Your task to perform on an android device: turn notification dots off Image 0: 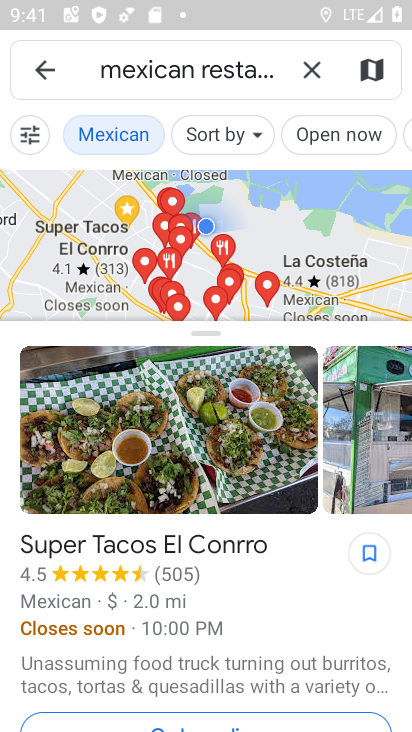
Step 0: press home button
Your task to perform on an android device: turn notification dots off Image 1: 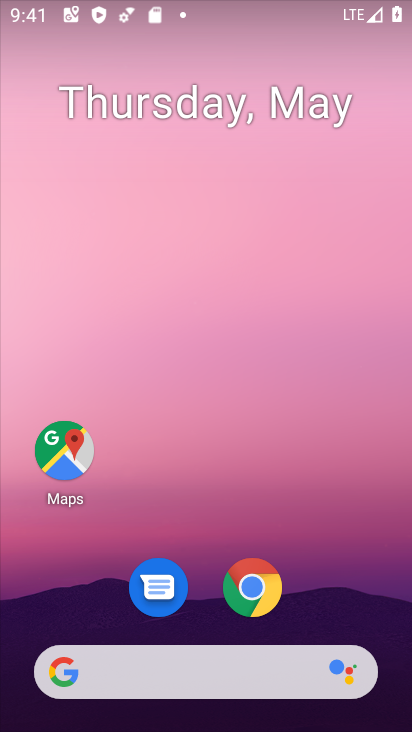
Step 1: drag from (346, 629) to (310, 9)
Your task to perform on an android device: turn notification dots off Image 2: 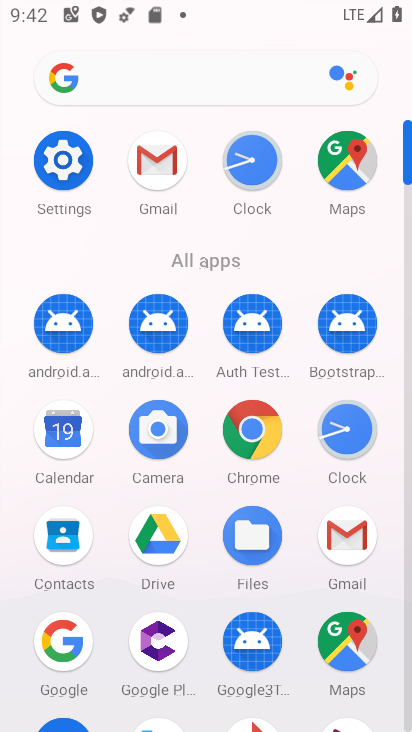
Step 2: click (67, 168)
Your task to perform on an android device: turn notification dots off Image 3: 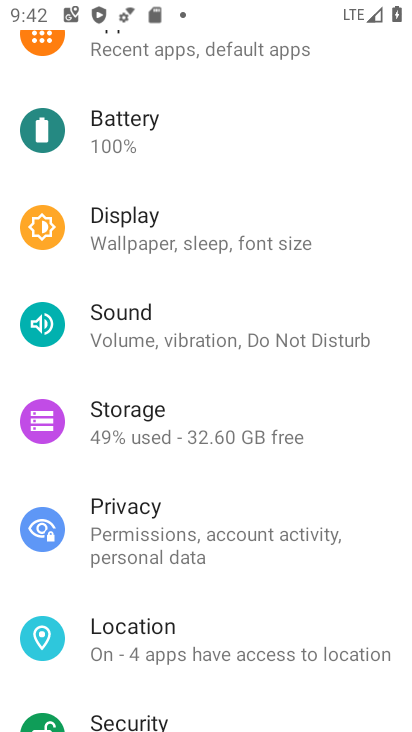
Step 3: drag from (293, 200) to (278, 493)
Your task to perform on an android device: turn notification dots off Image 4: 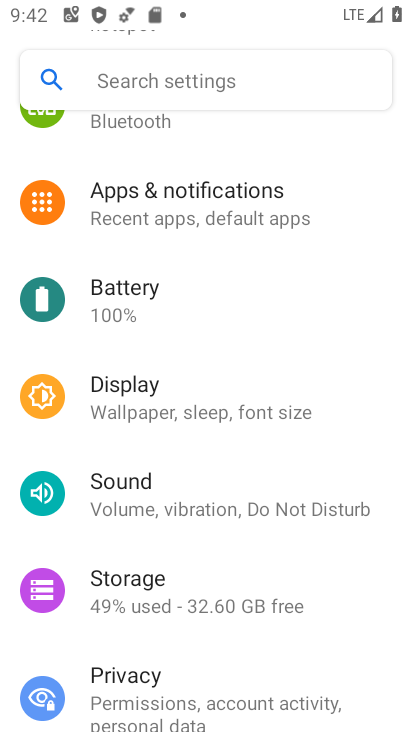
Step 4: click (169, 219)
Your task to perform on an android device: turn notification dots off Image 5: 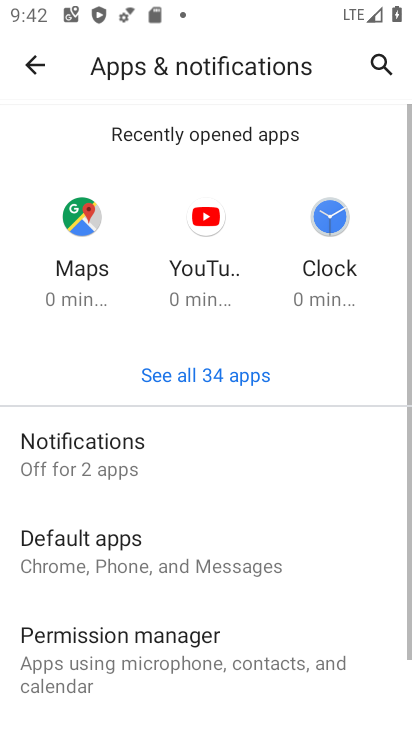
Step 5: click (94, 446)
Your task to perform on an android device: turn notification dots off Image 6: 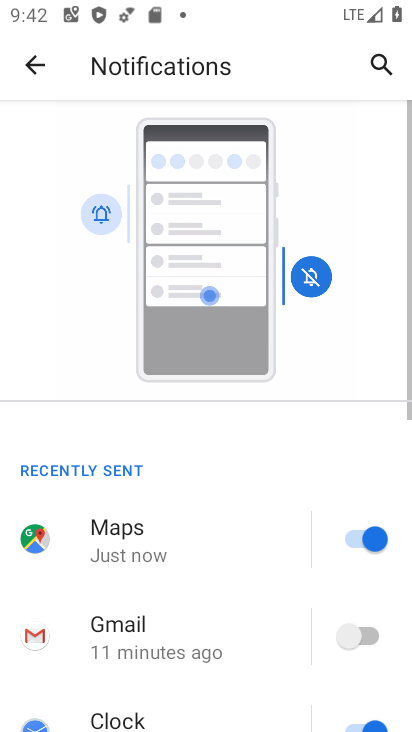
Step 6: drag from (230, 577) to (236, 121)
Your task to perform on an android device: turn notification dots off Image 7: 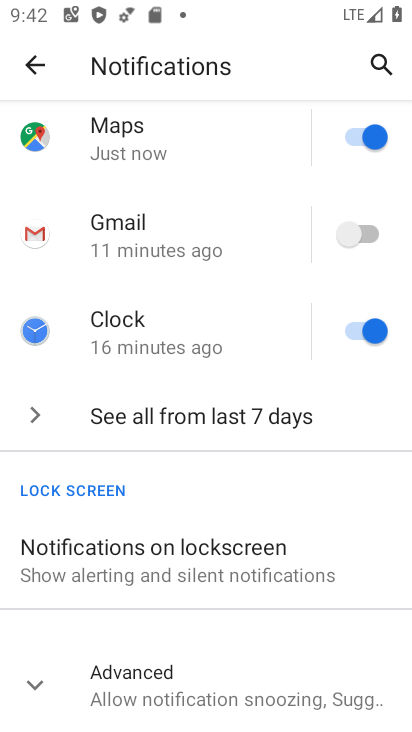
Step 7: drag from (191, 522) to (210, 205)
Your task to perform on an android device: turn notification dots off Image 8: 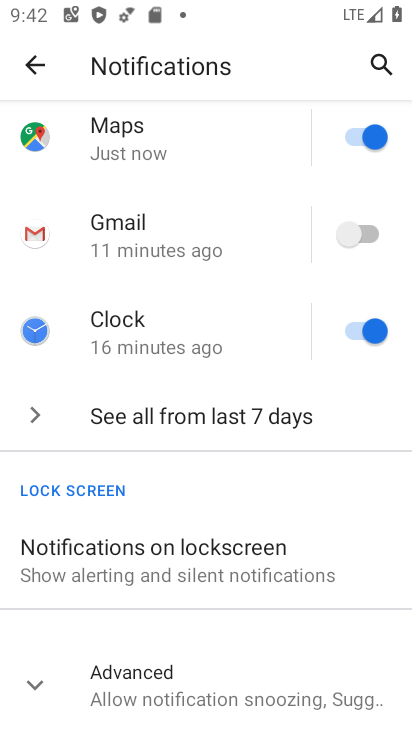
Step 8: click (40, 690)
Your task to perform on an android device: turn notification dots off Image 9: 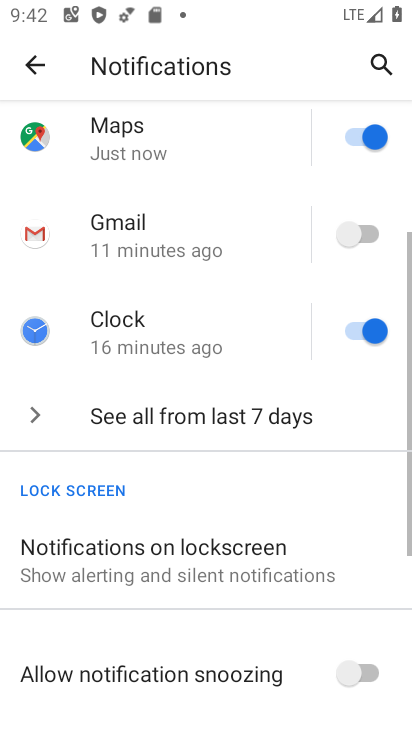
Step 9: drag from (167, 687) to (194, 185)
Your task to perform on an android device: turn notification dots off Image 10: 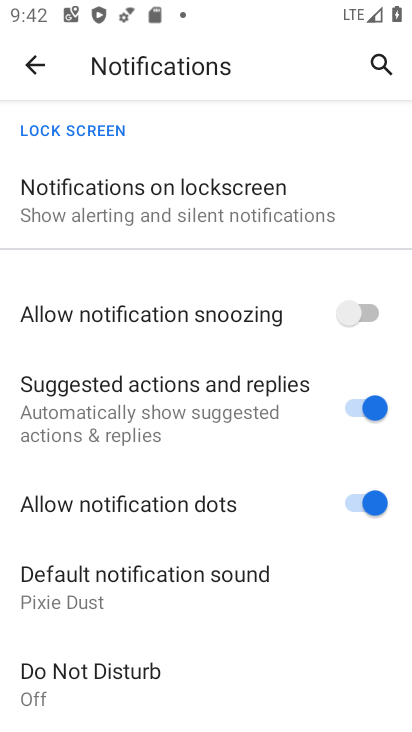
Step 10: click (364, 506)
Your task to perform on an android device: turn notification dots off Image 11: 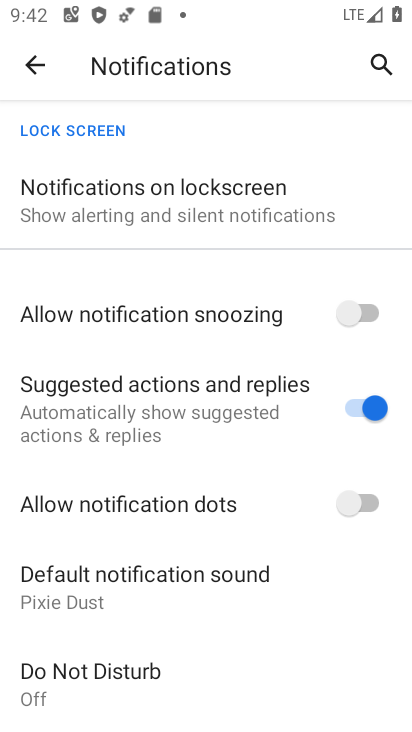
Step 11: task complete